Your task to perform on an android device: turn off sleep mode Image 0: 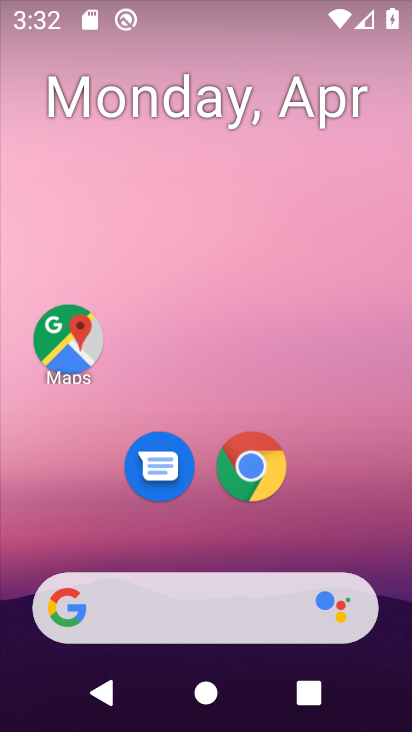
Step 0: drag from (238, 549) to (273, 229)
Your task to perform on an android device: turn off sleep mode Image 1: 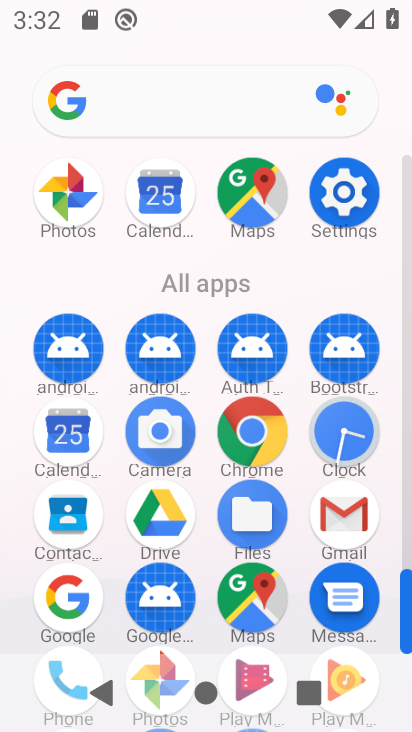
Step 1: click (347, 220)
Your task to perform on an android device: turn off sleep mode Image 2: 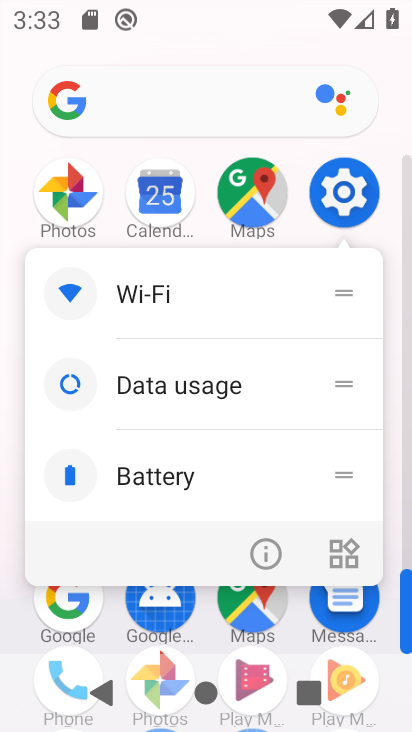
Step 2: click (272, 557)
Your task to perform on an android device: turn off sleep mode Image 3: 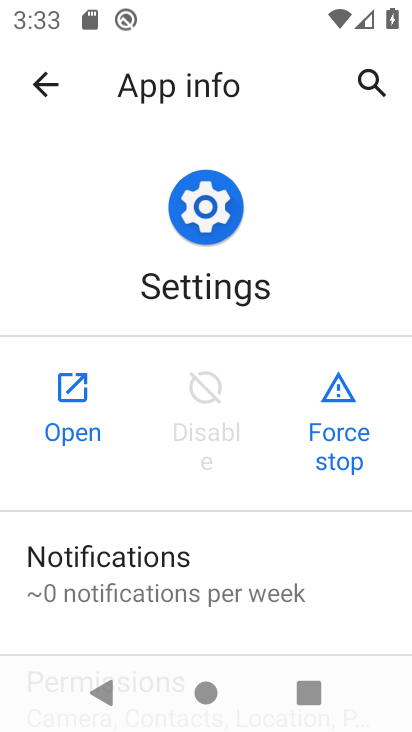
Step 3: click (99, 402)
Your task to perform on an android device: turn off sleep mode Image 4: 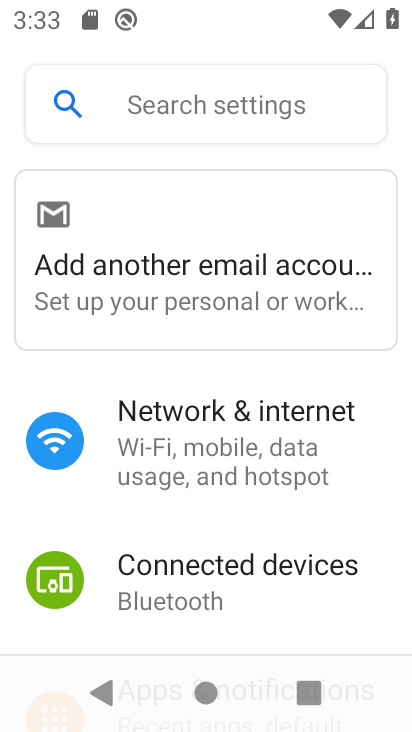
Step 4: task complete